Your task to perform on an android device: Go to settings Image 0: 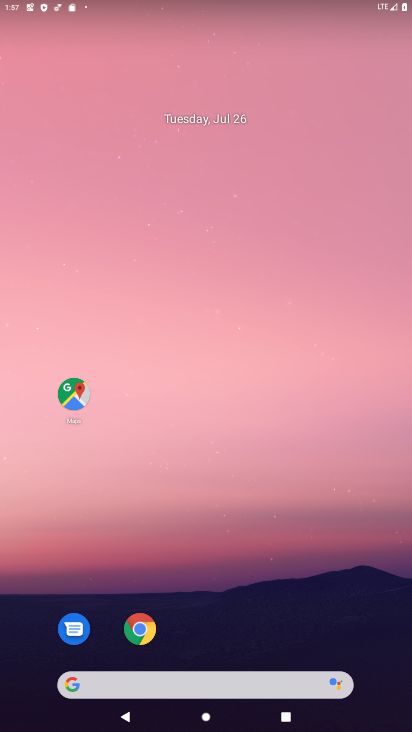
Step 0: press home button
Your task to perform on an android device: Go to settings Image 1: 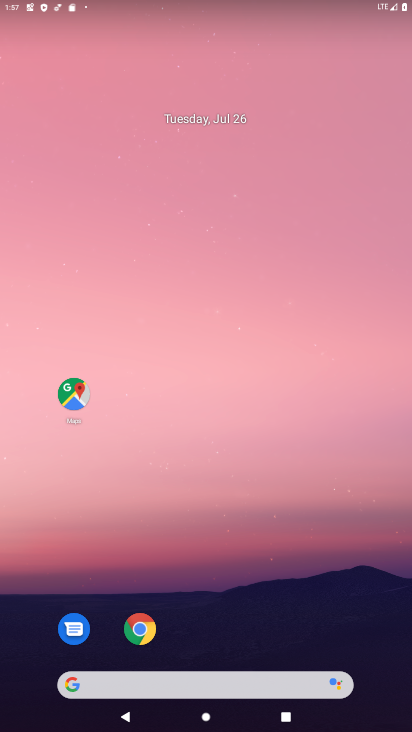
Step 1: drag from (384, 720) to (283, 154)
Your task to perform on an android device: Go to settings Image 2: 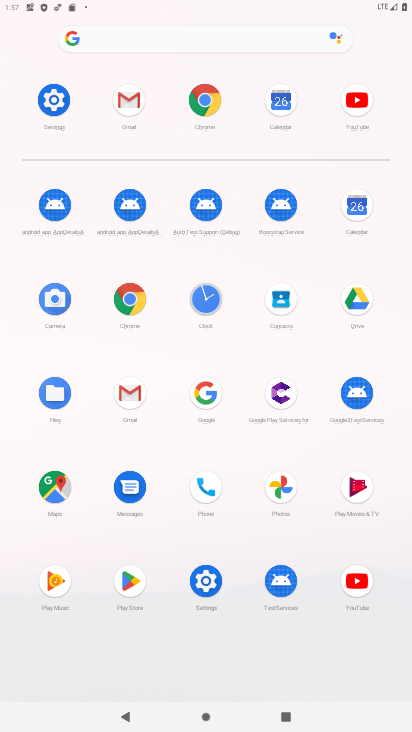
Step 2: click (206, 578)
Your task to perform on an android device: Go to settings Image 3: 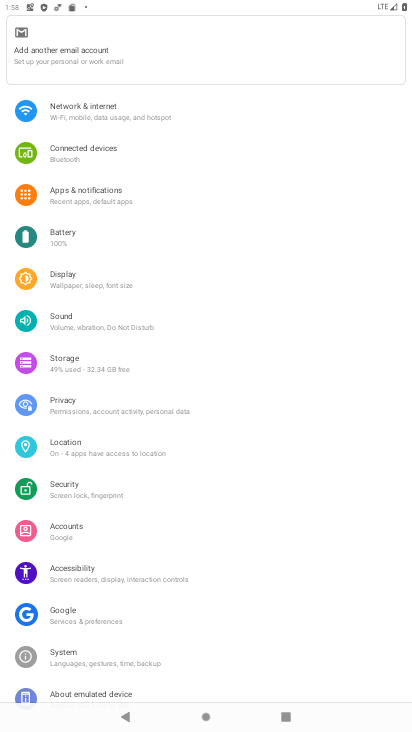
Step 3: task complete